Your task to perform on an android device: Open Google Chrome and open the bookmarks view Image 0: 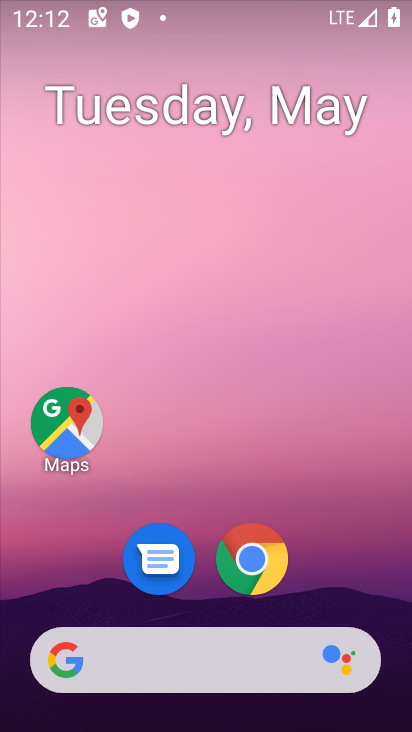
Step 0: click (269, 556)
Your task to perform on an android device: Open Google Chrome and open the bookmarks view Image 1: 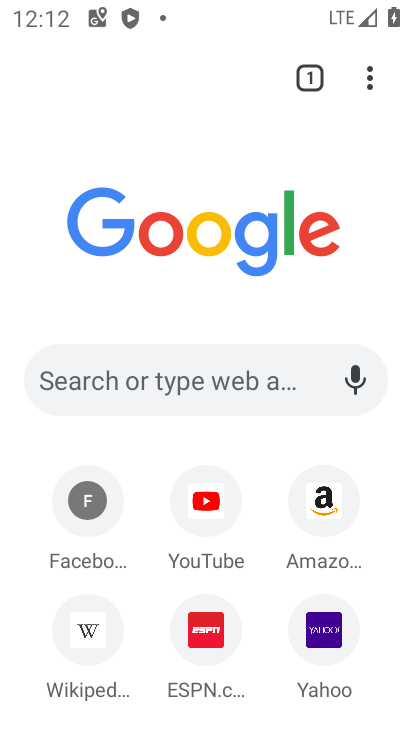
Step 1: click (374, 73)
Your task to perform on an android device: Open Google Chrome and open the bookmarks view Image 2: 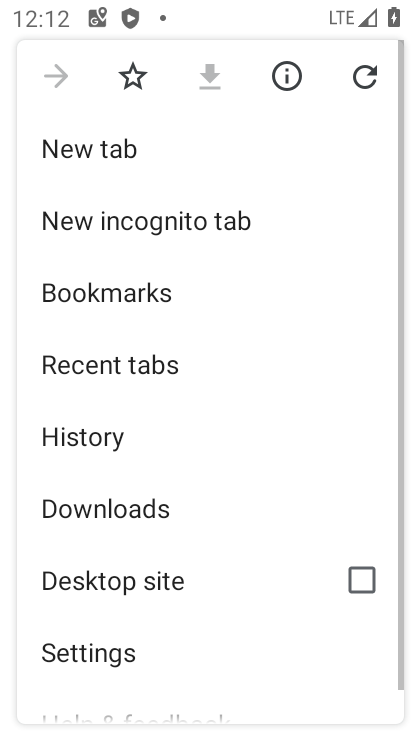
Step 2: click (163, 294)
Your task to perform on an android device: Open Google Chrome and open the bookmarks view Image 3: 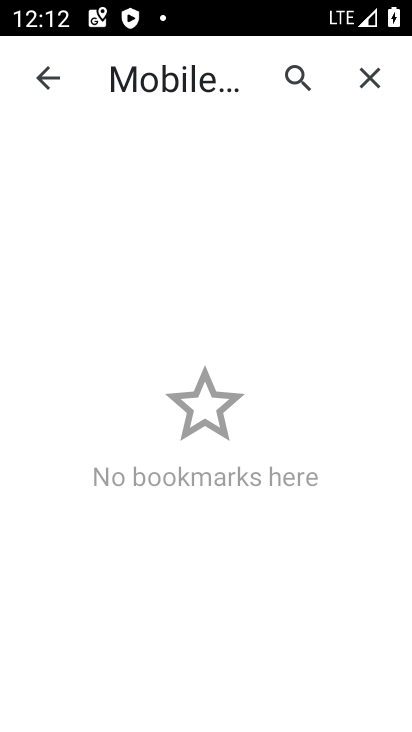
Step 3: task complete